Your task to perform on an android device: refresh tabs in the chrome app Image 0: 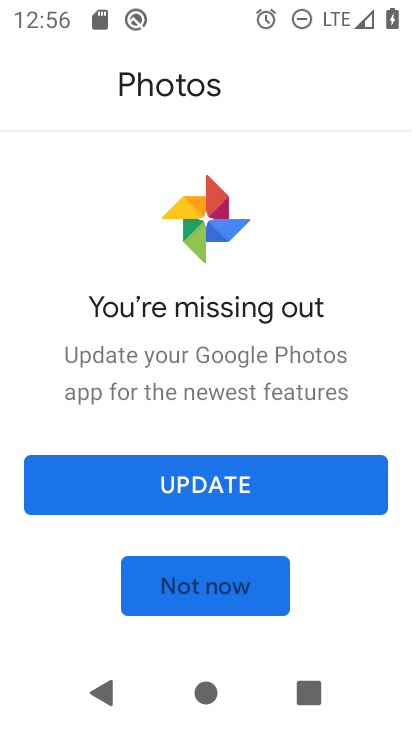
Step 0: press home button
Your task to perform on an android device: refresh tabs in the chrome app Image 1: 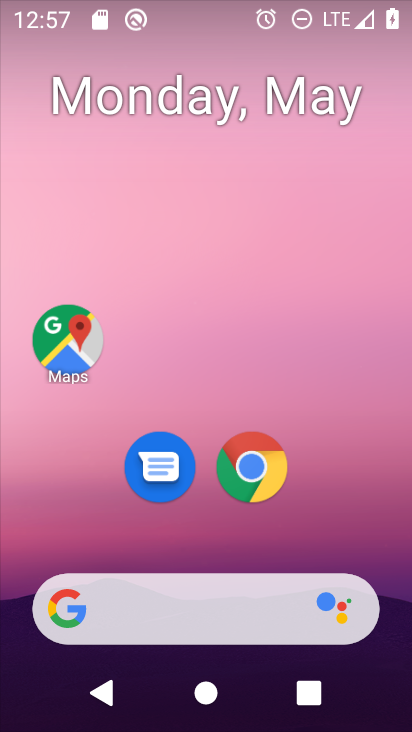
Step 1: click (257, 471)
Your task to perform on an android device: refresh tabs in the chrome app Image 2: 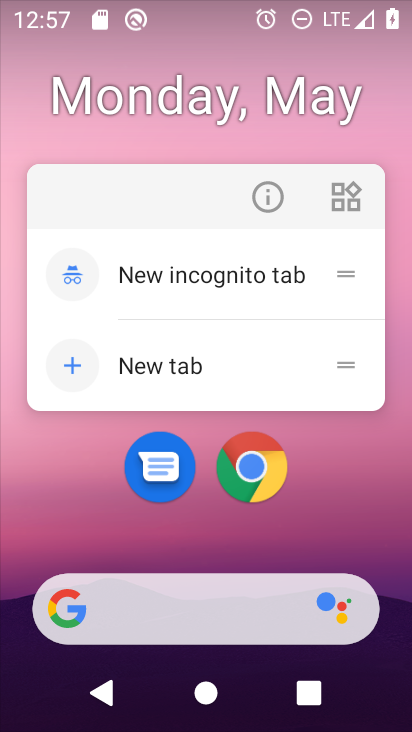
Step 2: click (257, 471)
Your task to perform on an android device: refresh tabs in the chrome app Image 3: 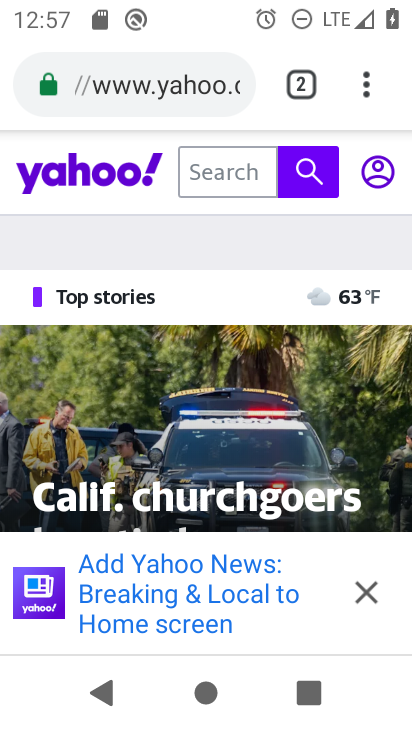
Step 3: click (370, 83)
Your task to perform on an android device: refresh tabs in the chrome app Image 4: 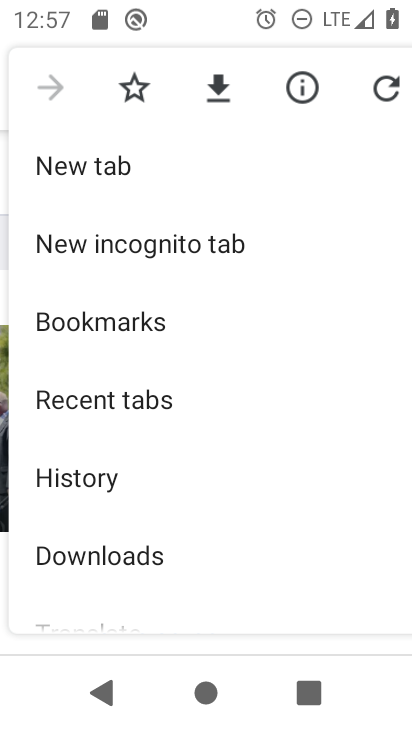
Step 4: click (382, 92)
Your task to perform on an android device: refresh tabs in the chrome app Image 5: 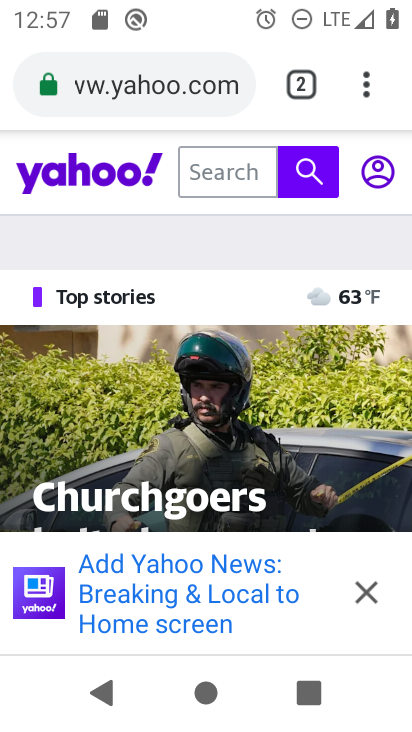
Step 5: task complete